Your task to perform on an android device: toggle data saver in the chrome app Image 0: 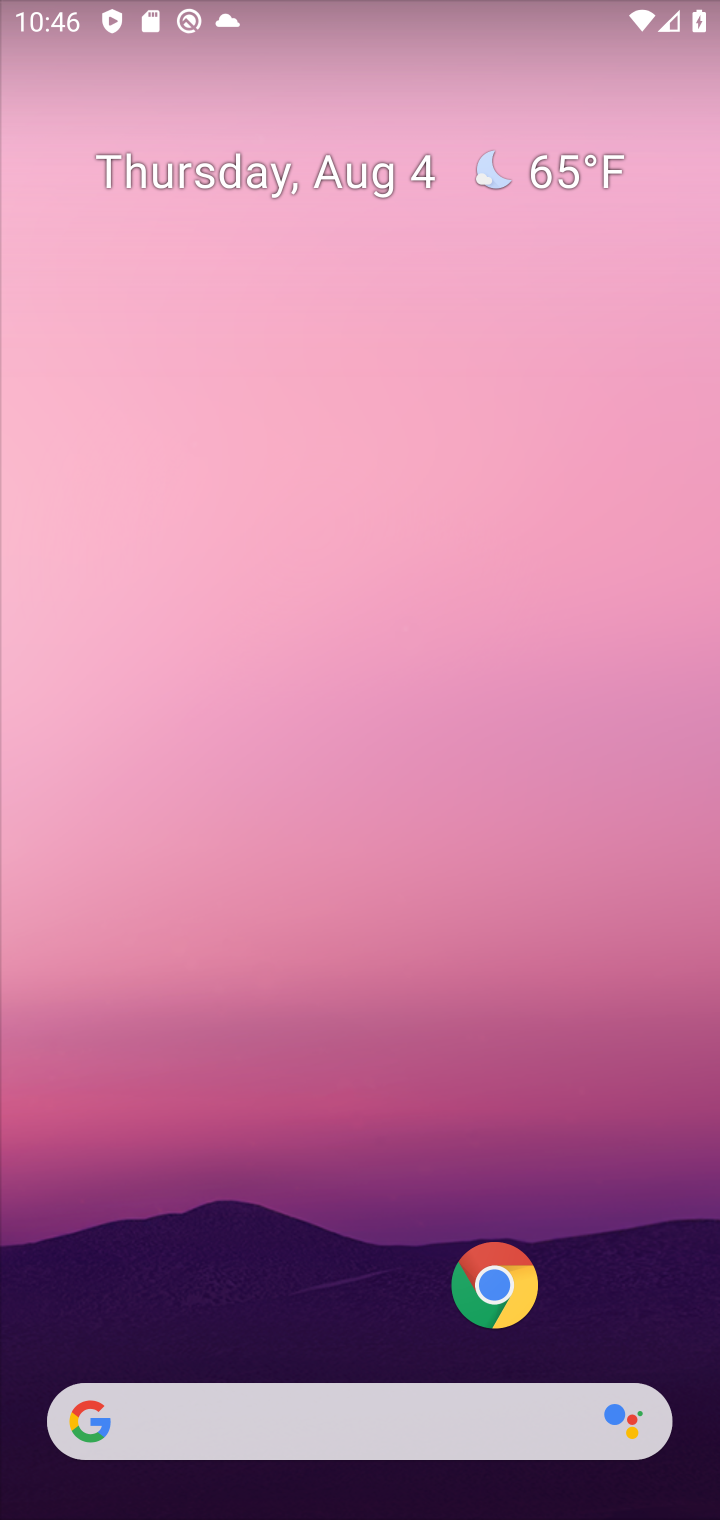
Step 0: drag from (172, 1339) to (230, 63)
Your task to perform on an android device: toggle data saver in the chrome app Image 1: 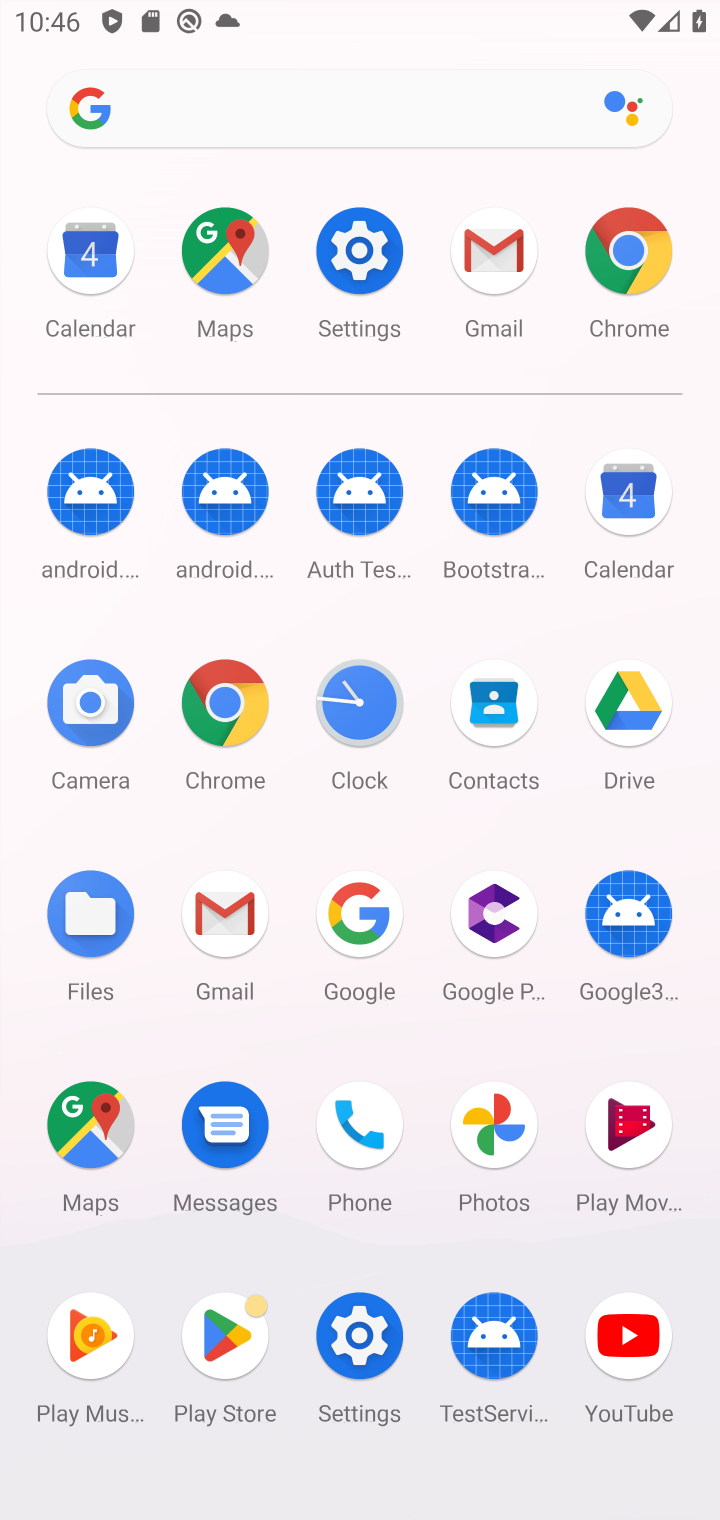
Step 1: click (224, 718)
Your task to perform on an android device: toggle data saver in the chrome app Image 2: 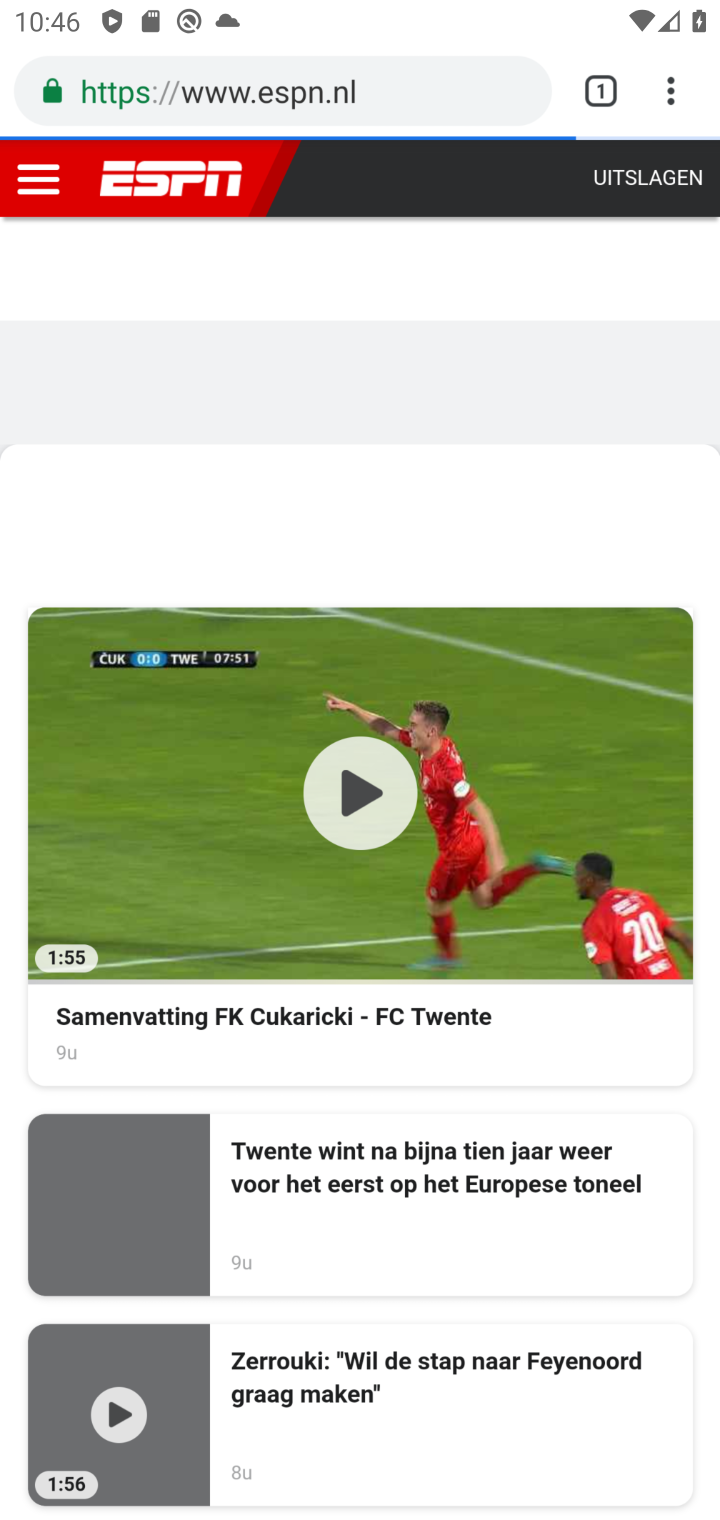
Step 2: drag from (665, 86) to (395, 1204)
Your task to perform on an android device: toggle data saver in the chrome app Image 3: 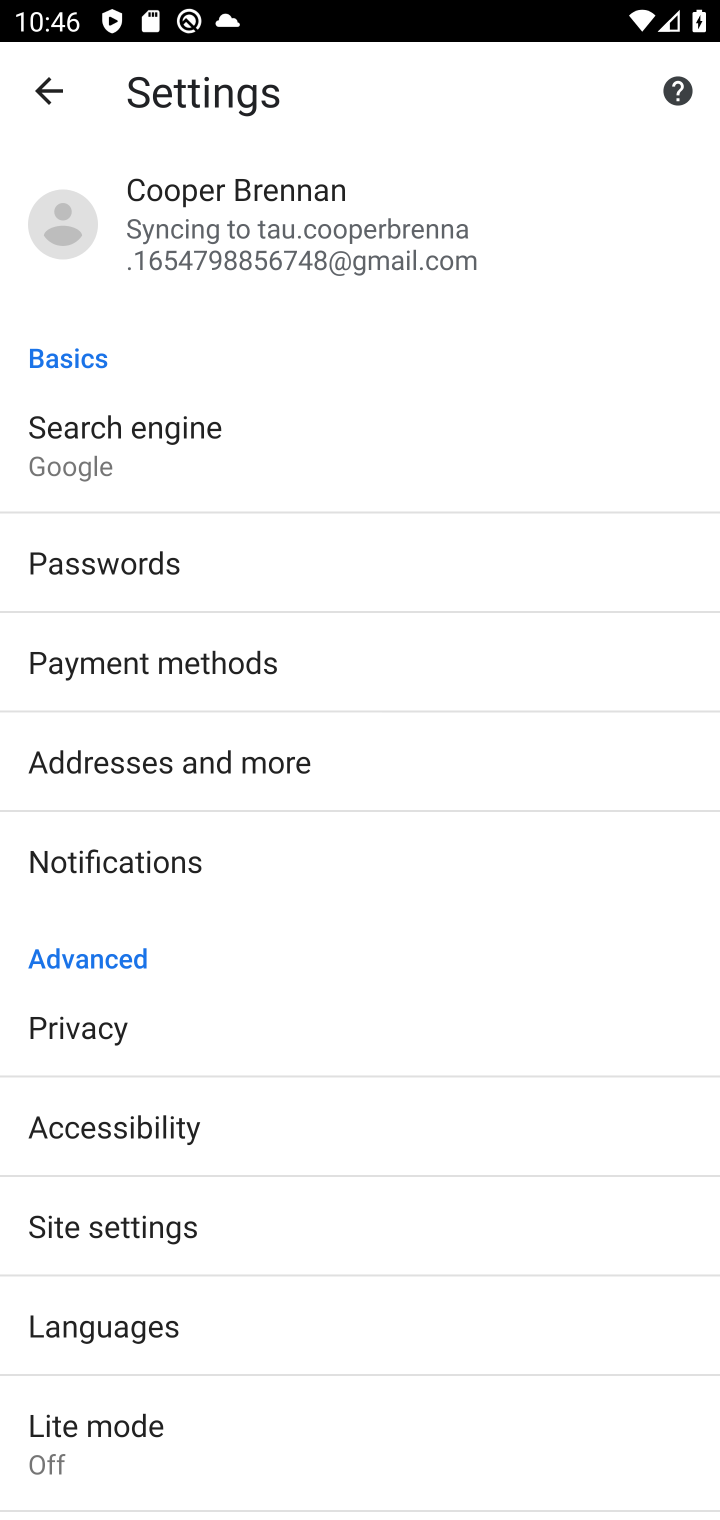
Step 3: drag from (280, 1337) to (299, 599)
Your task to perform on an android device: toggle data saver in the chrome app Image 4: 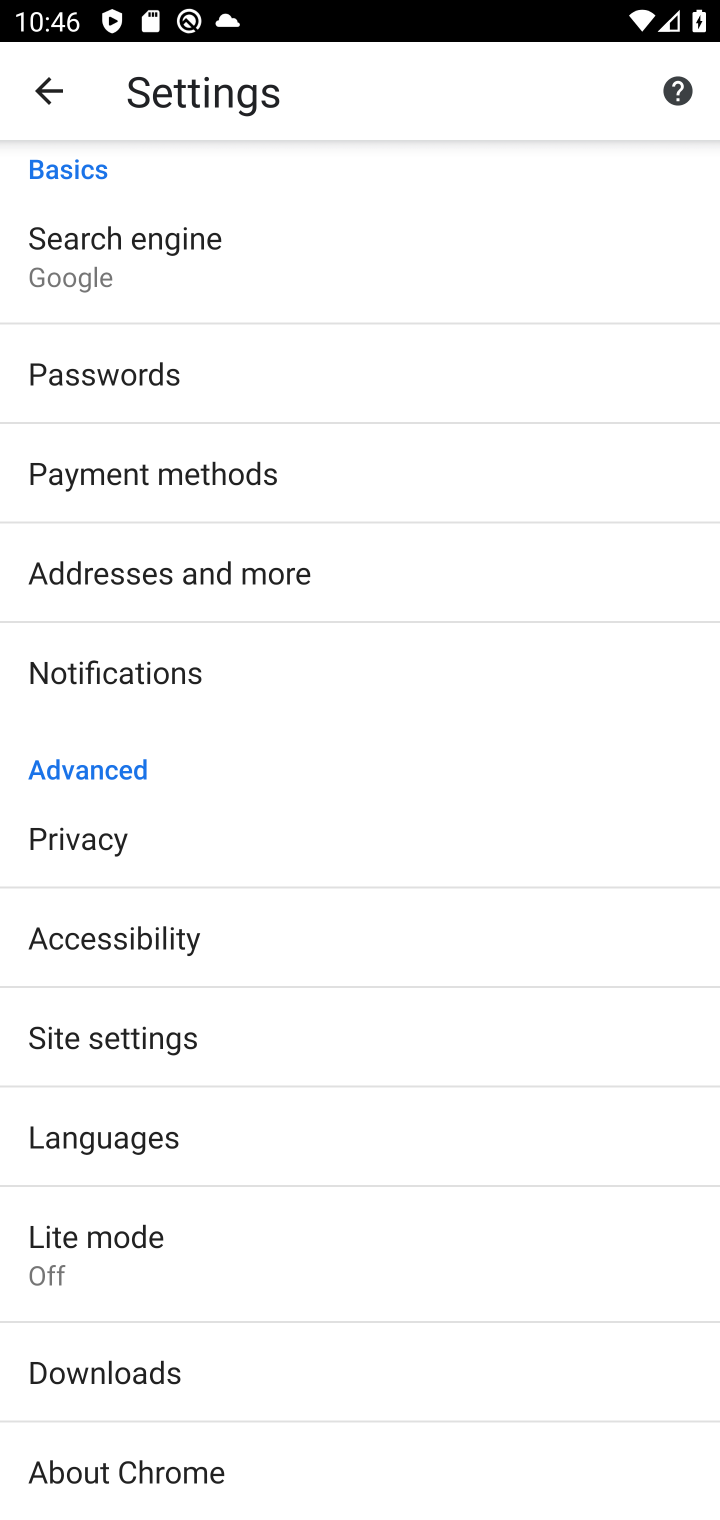
Step 4: click (98, 1233)
Your task to perform on an android device: toggle data saver in the chrome app Image 5: 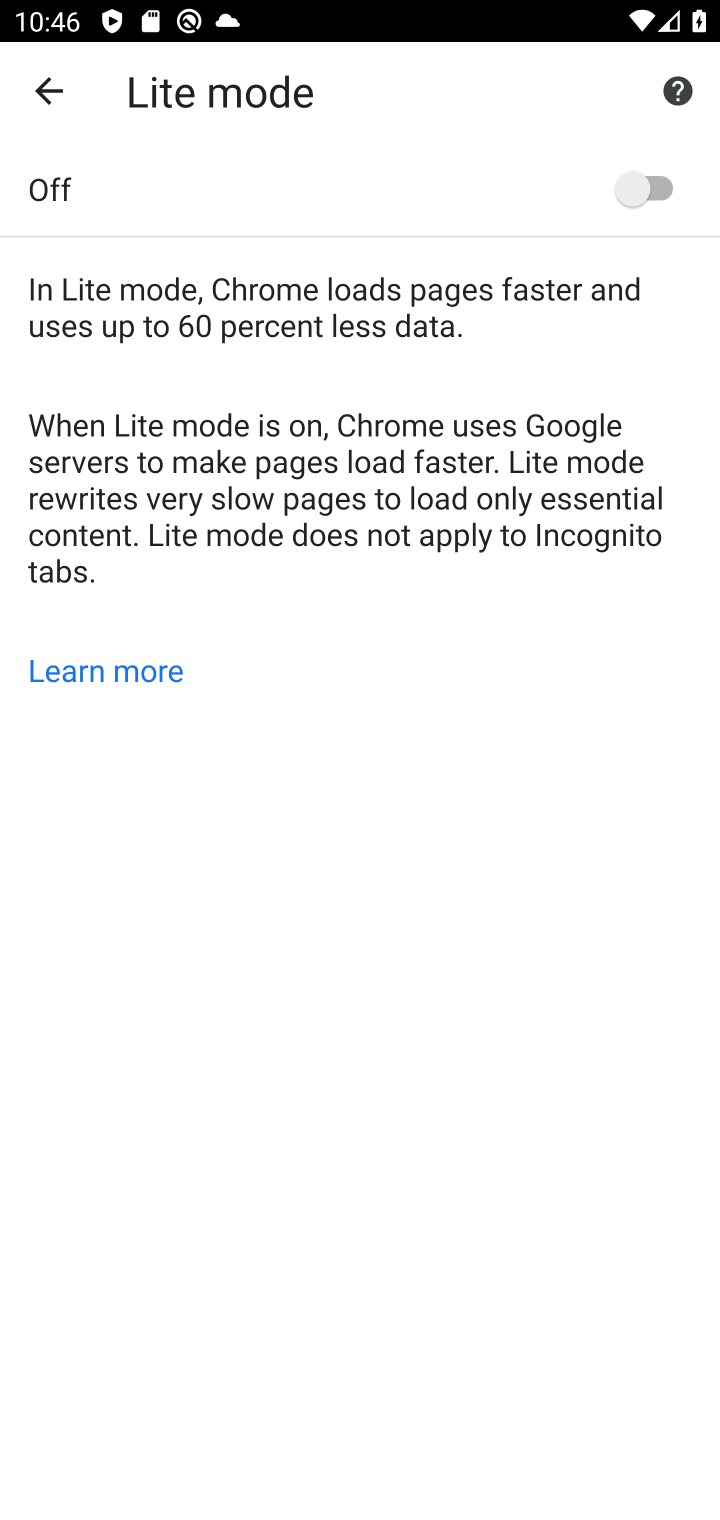
Step 5: click (541, 200)
Your task to perform on an android device: toggle data saver in the chrome app Image 6: 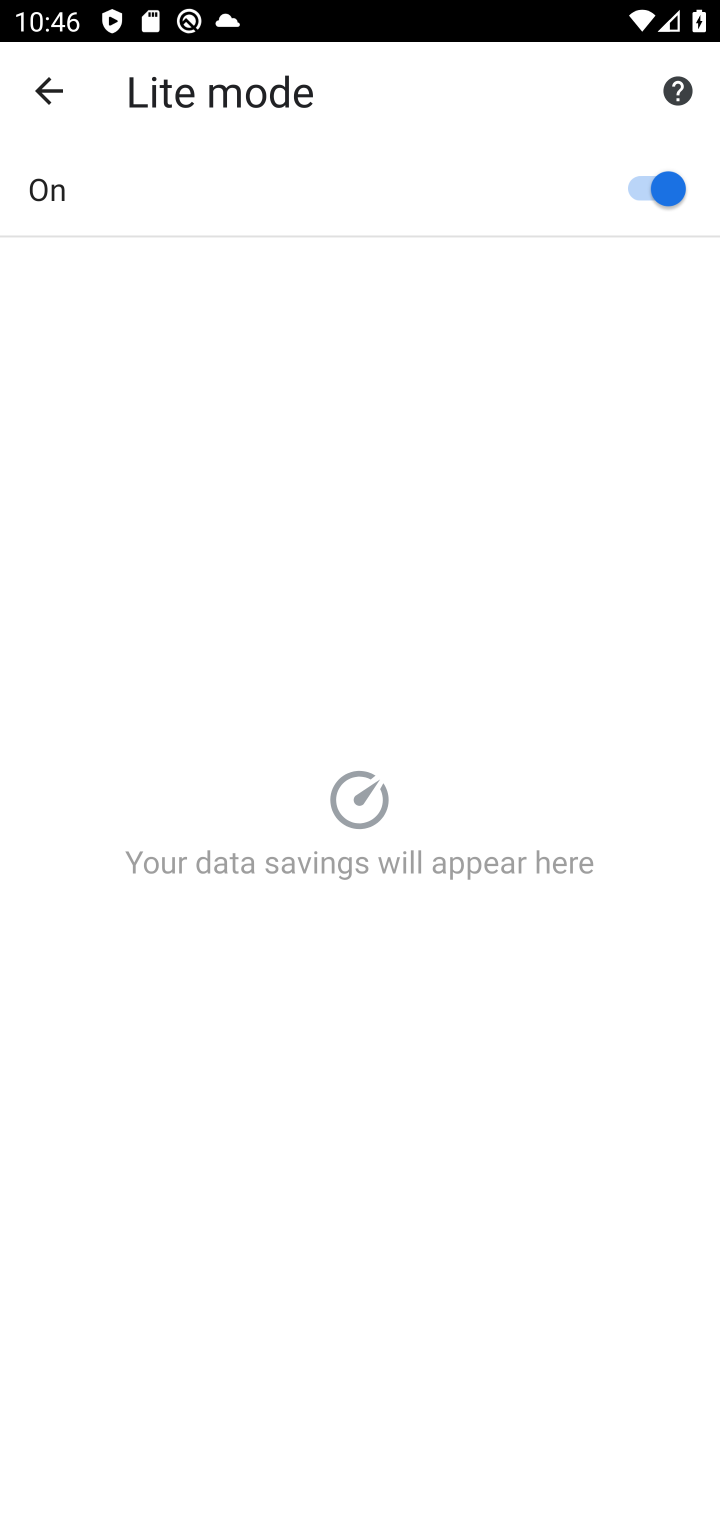
Step 6: task complete